Your task to perform on an android device: Go to display settings Image 0: 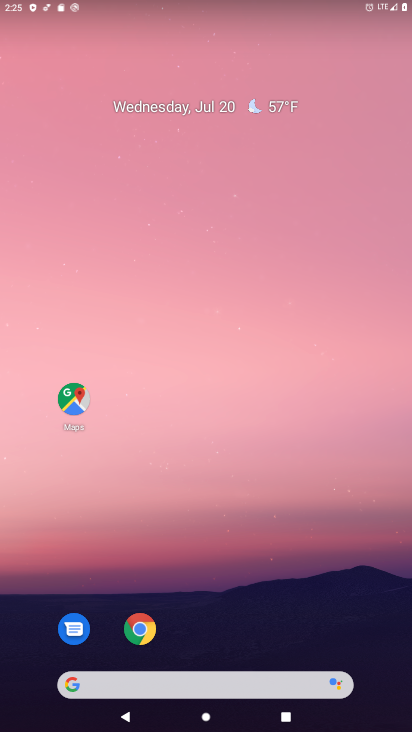
Step 0: drag from (392, 664) to (328, 156)
Your task to perform on an android device: Go to display settings Image 1: 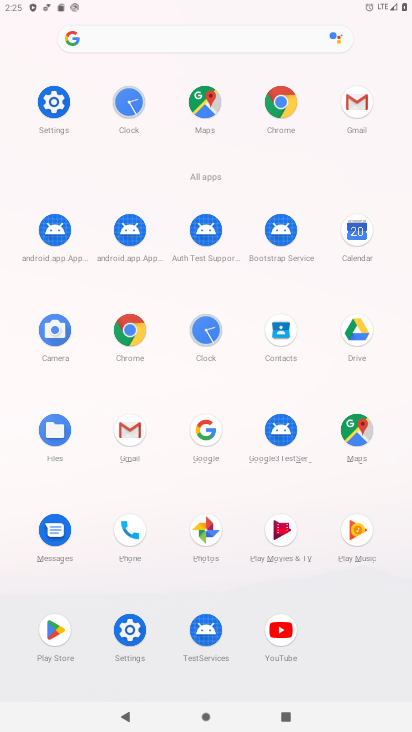
Step 1: click (129, 633)
Your task to perform on an android device: Go to display settings Image 2: 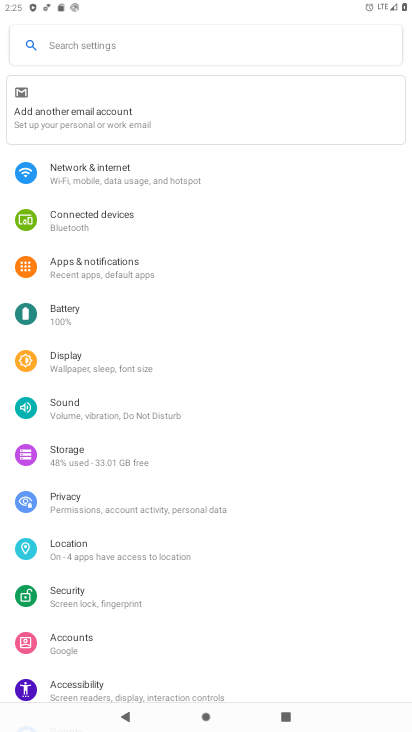
Step 2: click (69, 355)
Your task to perform on an android device: Go to display settings Image 3: 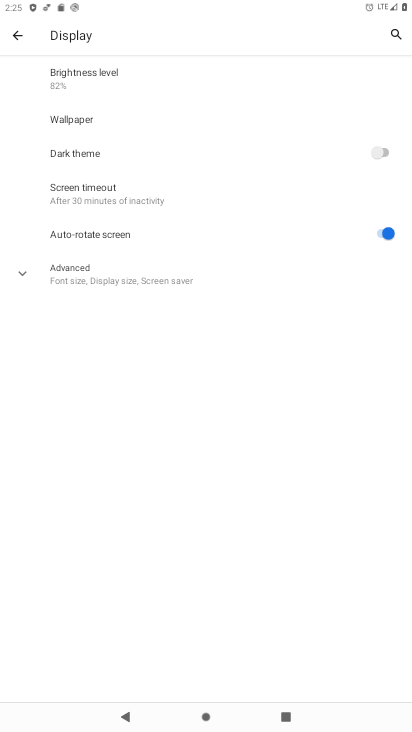
Step 3: click (28, 275)
Your task to perform on an android device: Go to display settings Image 4: 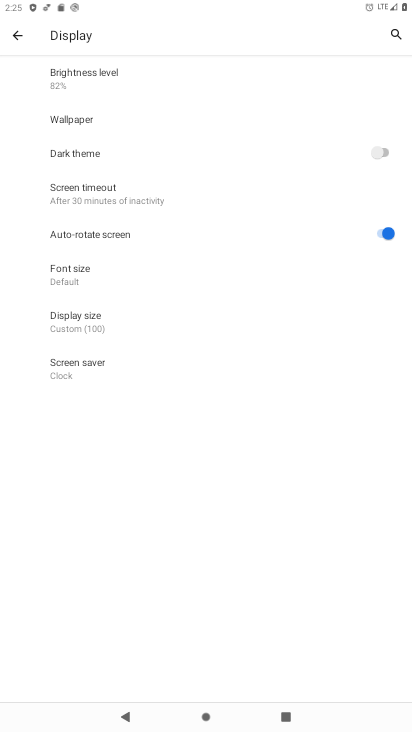
Step 4: task complete